Your task to perform on an android device: turn off picture-in-picture Image 0: 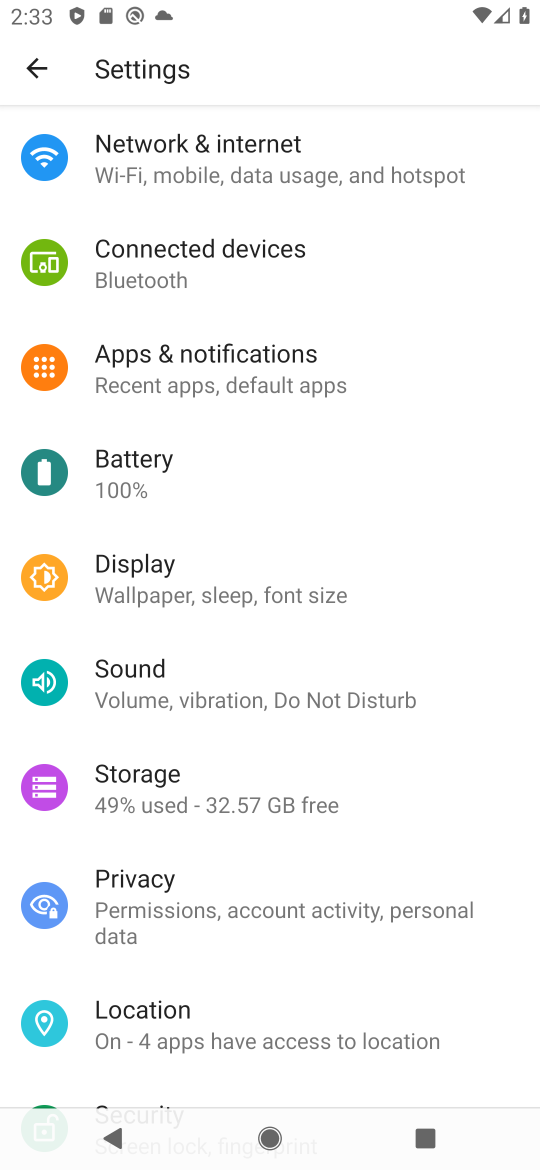
Step 0: press home button
Your task to perform on an android device: turn off picture-in-picture Image 1: 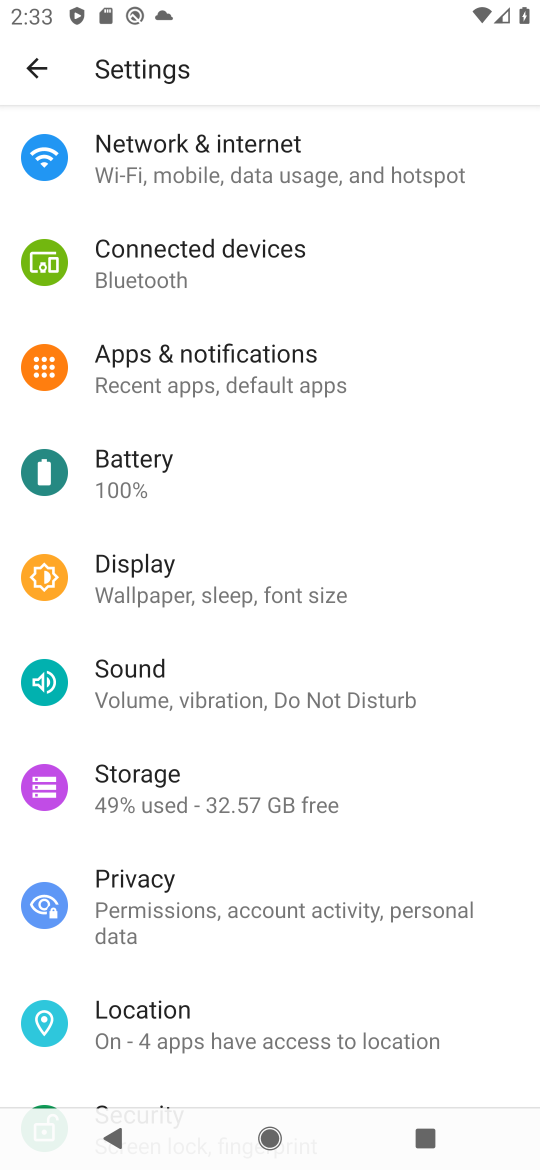
Step 1: press home button
Your task to perform on an android device: turn off picture-in-picture Image 2: 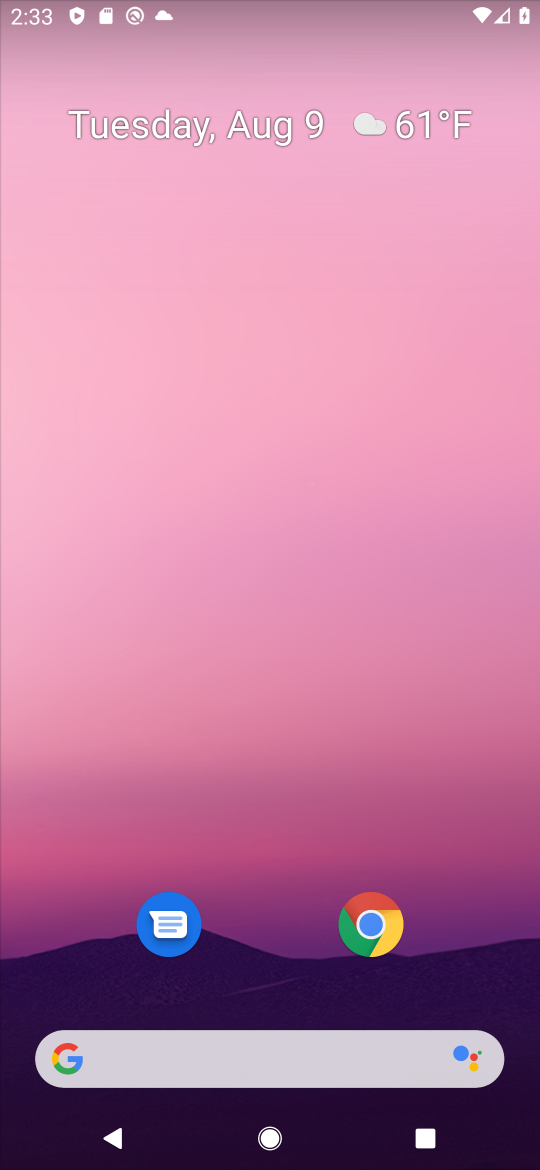
Step 2: click (372, 917)
Your task to perform on an android device: turn off picture-in-picture Image 3: 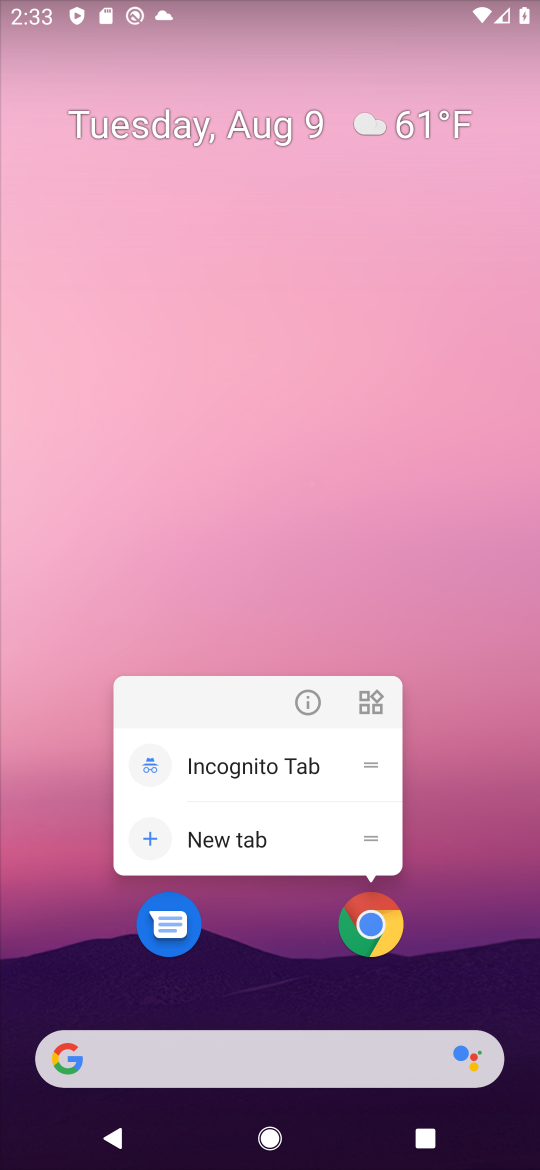
Step 3: click (310, 699)
Your task to perform on an android device: turn off picture-in-picture Image 4: 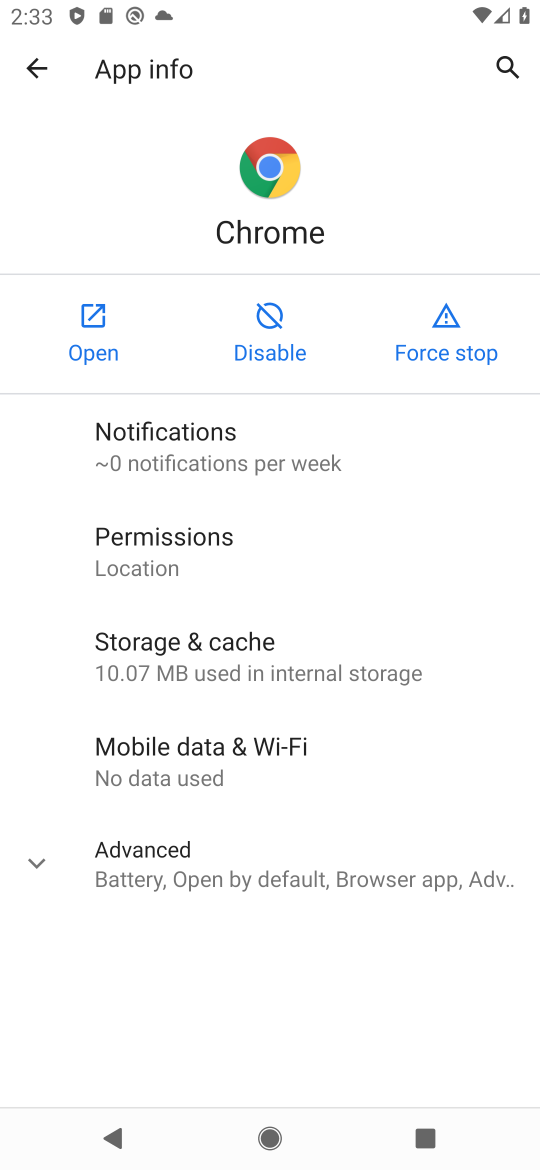
Step 4: click (24, 850)
Your task to perform on an android device: turn off picture-in-picture Image 5: 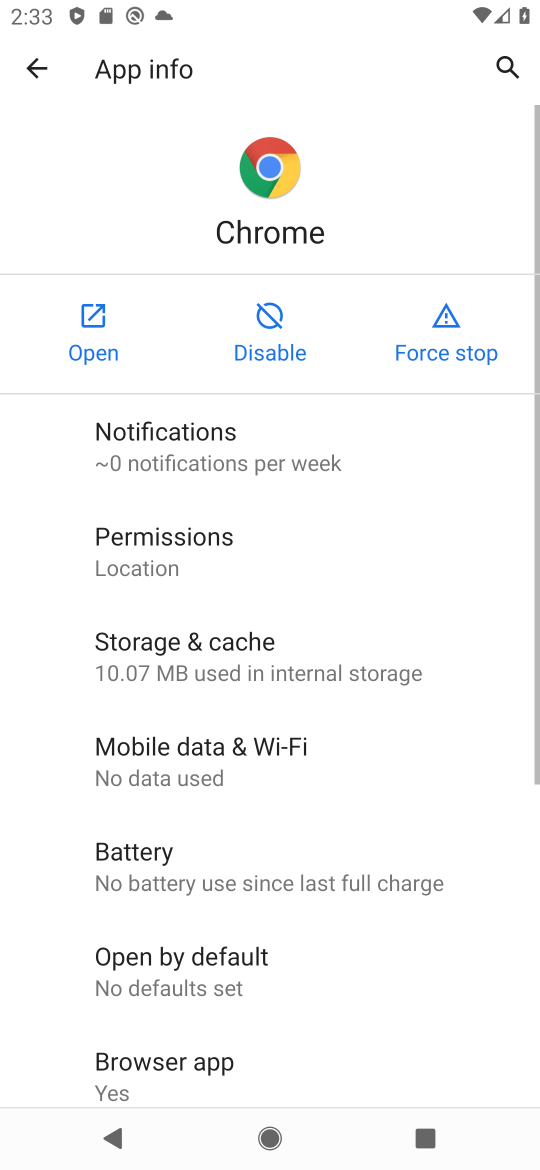
Step 5: drag from (345, 836) to (422, 82)
Your task to perform on an android device: turn off picture-in-picture Image 6: 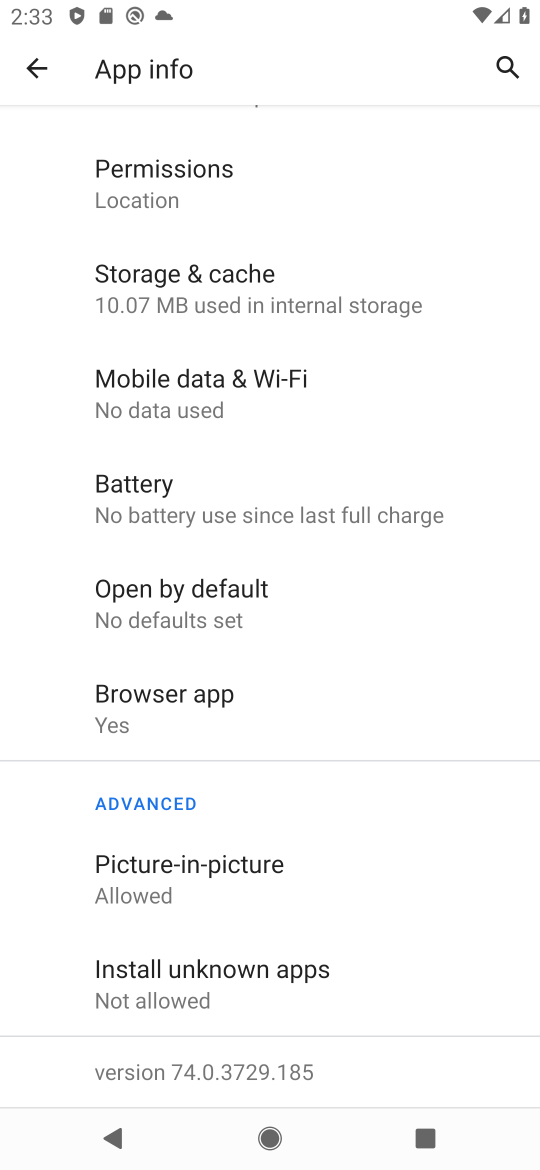
Step 6: click (288, 875)
Your task to perform on an android device: turn off picture-in-picture Image 7: 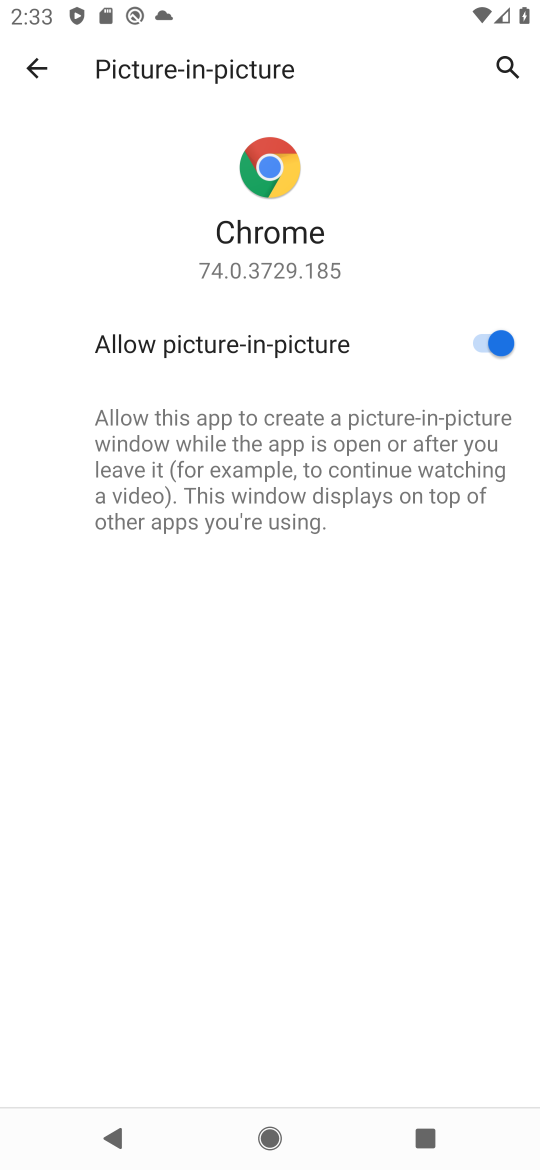
Step 7: click (487, 331)
Your task to perform on an android device: turn off picture-in-picture Image 8: 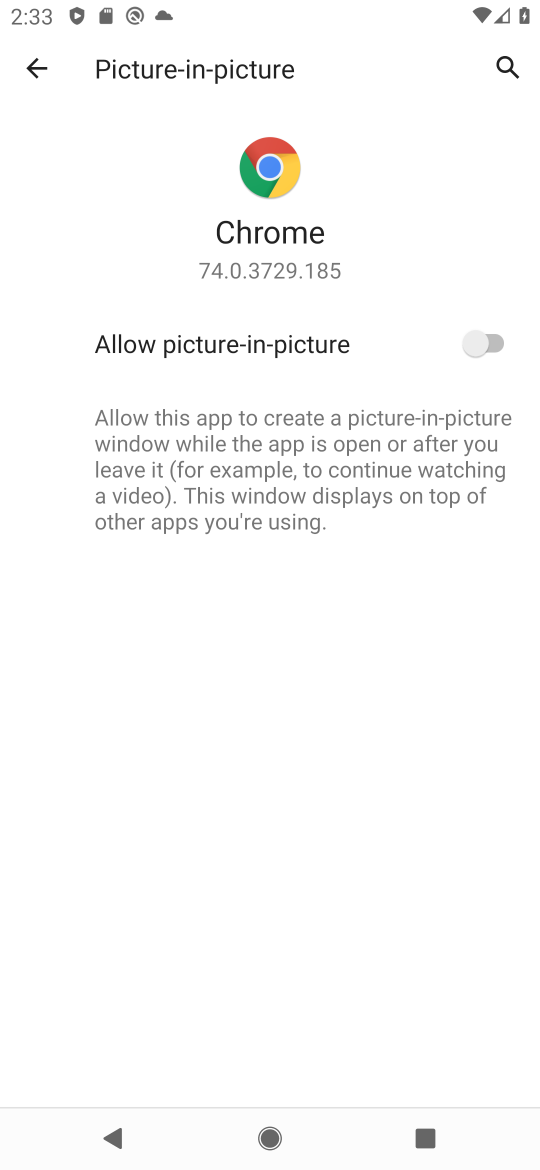
Step 8: task complete